Your task to perform on an android device: Open maps Image 0: 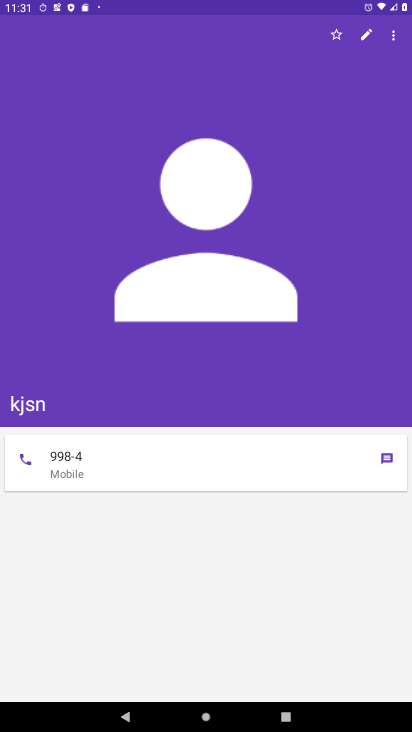
Step 0: drag from (225, 562) to (226, 308)
Your task to perform on an android device: Open maps Image 1: 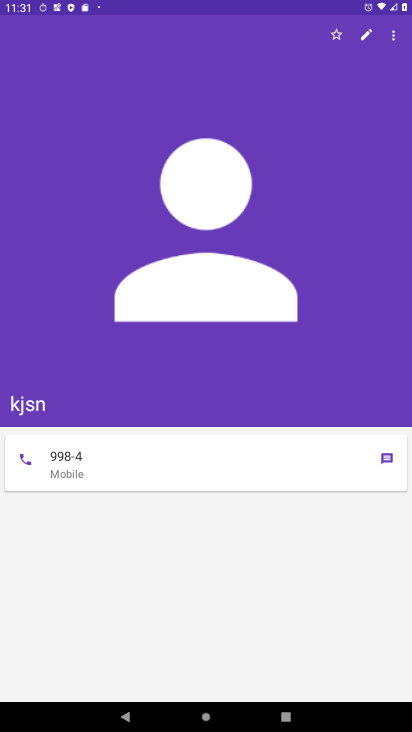
Step 1: press back button
Your task to perform on an android device: Open maps Image 2: 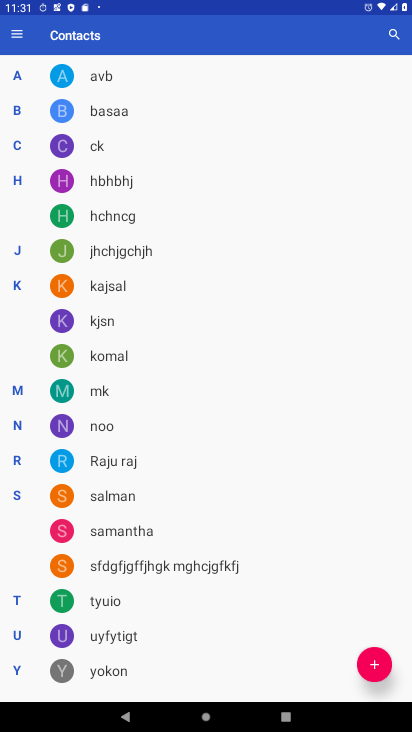
Step 2: press home button
Your task to perform on an android device: Open maps Image 3: 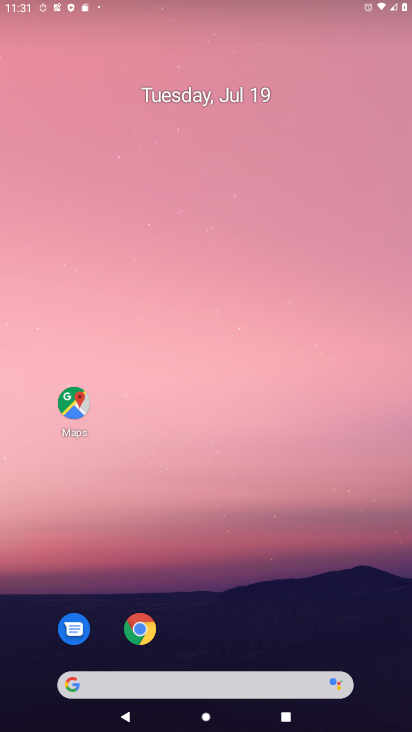
Step 3: drag from (291, 579) to (244, 238)
Your task to perform on an android device: Open maps Image 4: 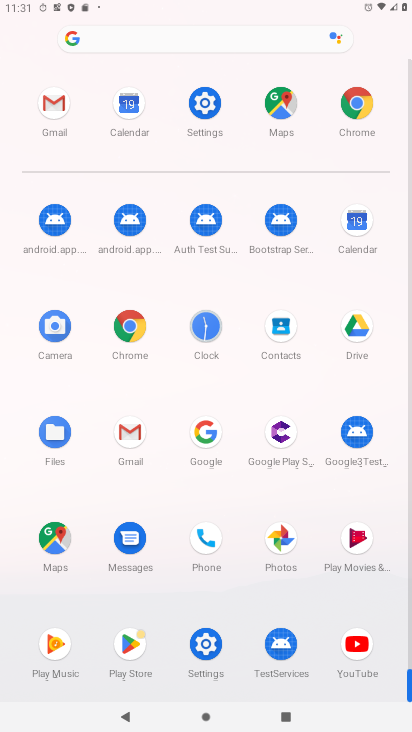
Step 4: click (278, 104)
Your task to perform on an android device: Open maps Image 5: 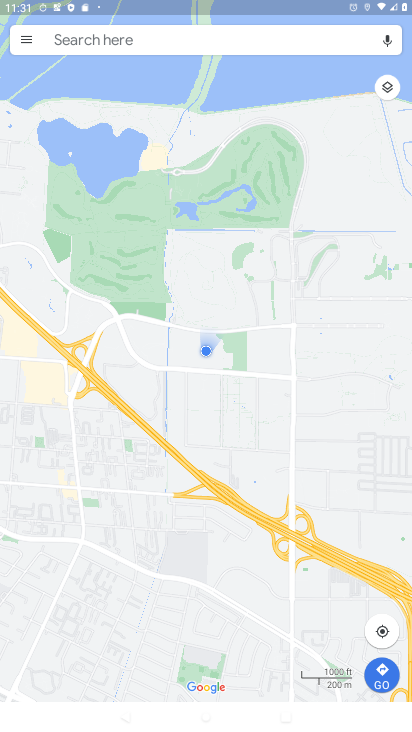
Step 5: task complete